Your task to perform on an android device: set default search engine in the chrome app Image 0: 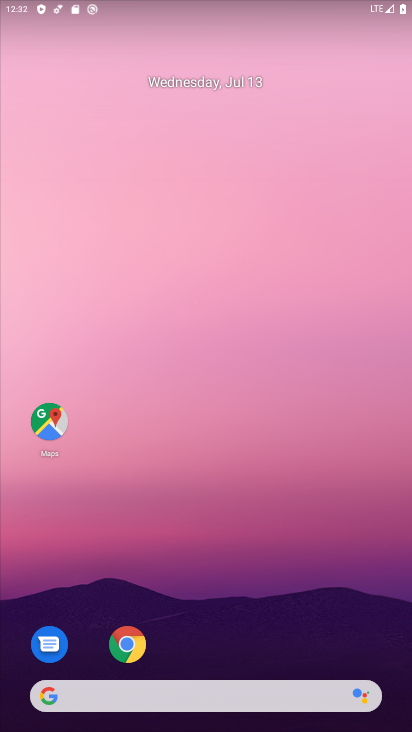
Step 0: click (154, 646)
Your task to perform on an android device: set default search engine in the chrome app Image 1: 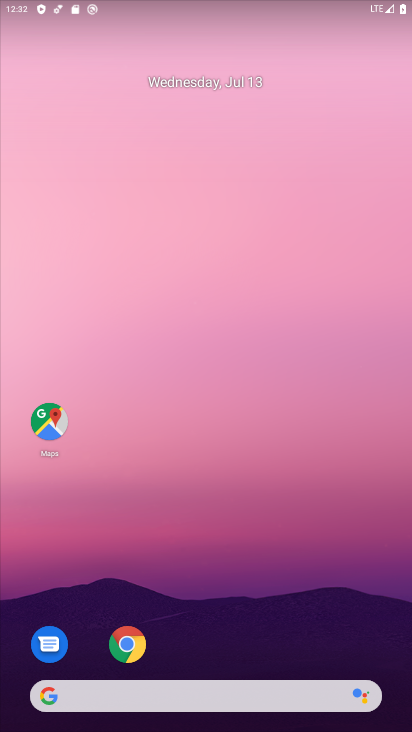
Step 1: click (132, 641)
Your task to perform on an android device: set default search engine in the chrome app Image 2: 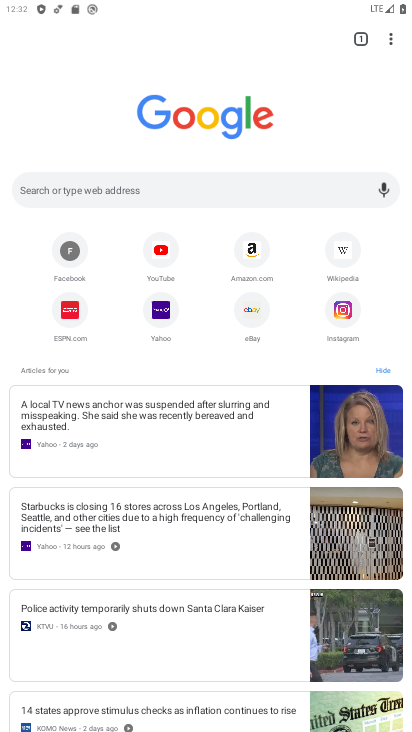
Step 2: click (393, 42)
Your task to perform on an android device: set default search engine in the chrome app Image 3: 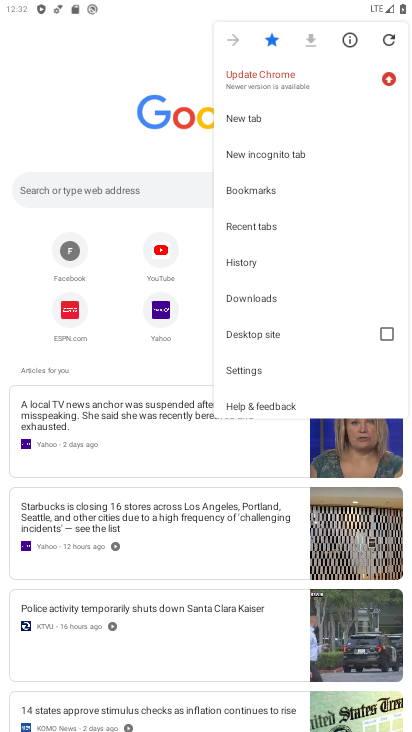
Step 3: click (241, 371)
Your task to perform on an android device: set default search engine in the chrome app Image 4: 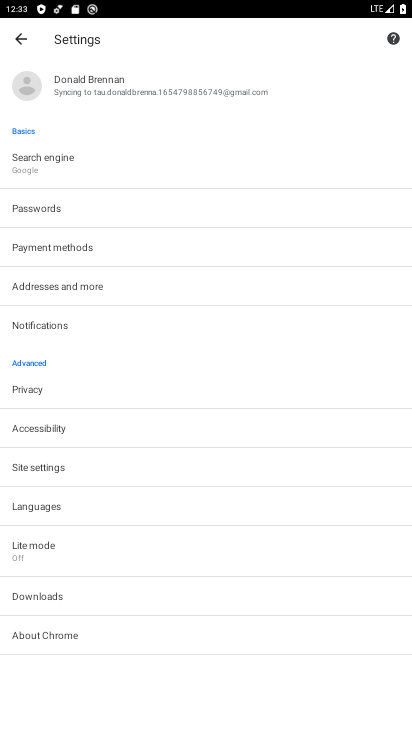
Step 4: click (35, 162)
Your task to perform on an android device: set default search engine in the chrome app Image 5: 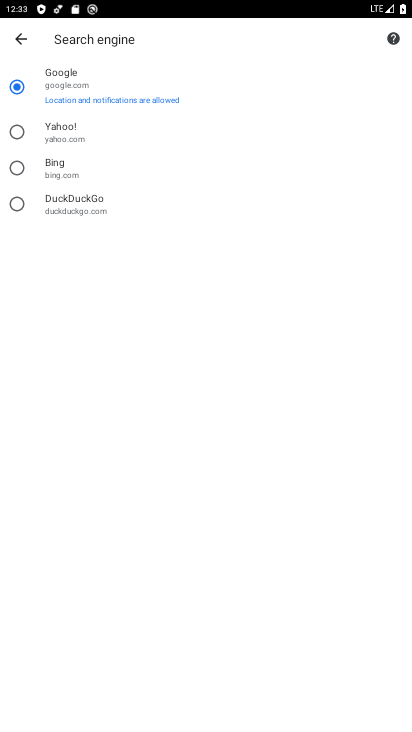
Step 5: click (20, 133)
Your task to perform on an android device: set default search engine in the chrome app Image 6: 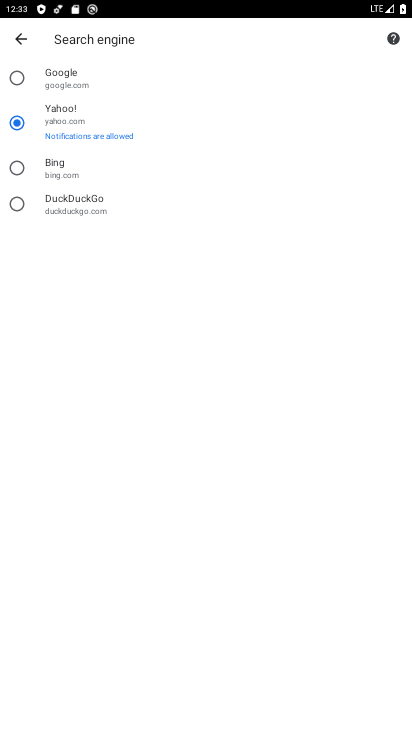
Step 6: task complete